Your task to perform on an android device: turn on the 24-hour format for clock Image 0: 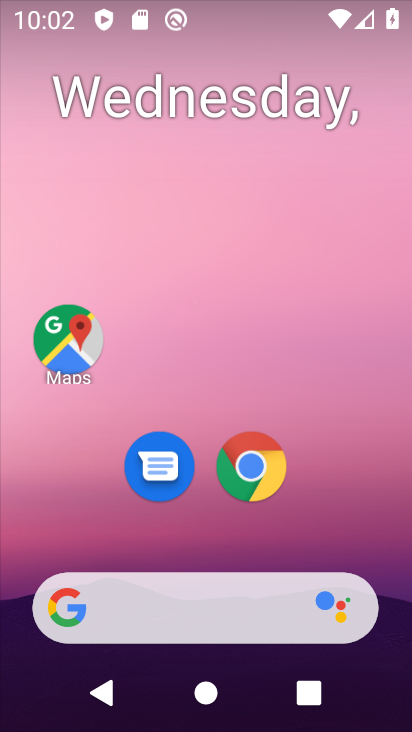
Step 0: drag from (202, 535) to (203, 53)
Your task to perform on an android device: turn on the 24-hour format for clock Image 1: 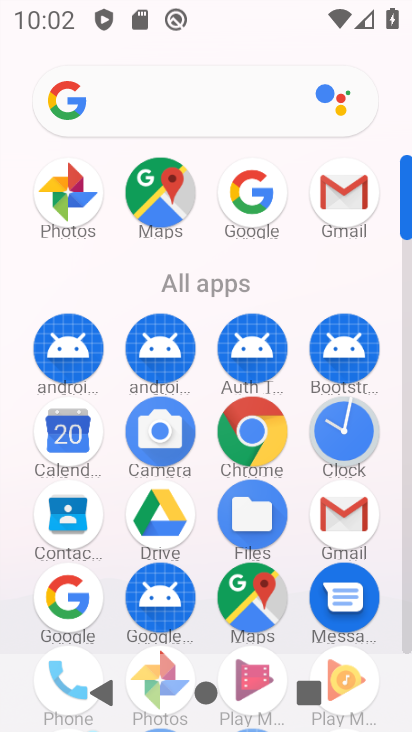
Step 1: drag from (209, 552) to (202, 152)
Your task to perform on an android device: turn on the 24-hour format for clock Image 2: 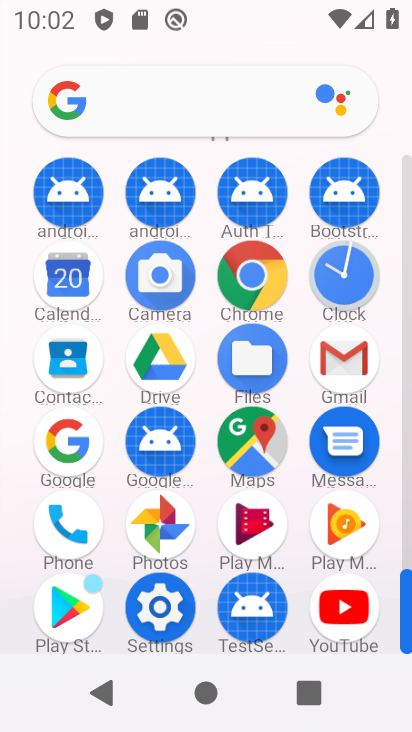
Step 2: click (339, 267)
Your task to perform on an android device: turn on the 24-hour format for clock Image 3: 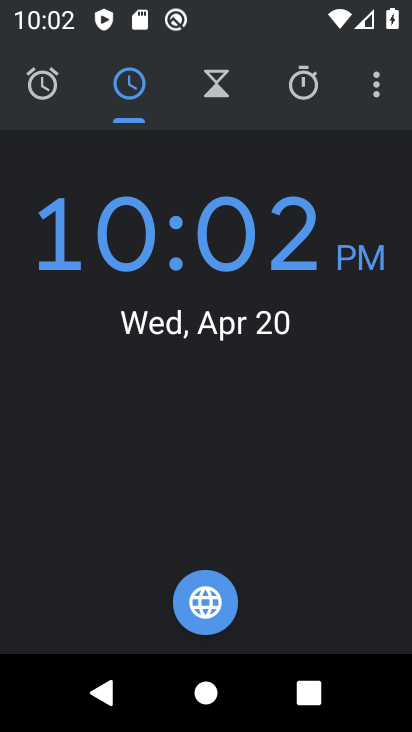
Step 3: click (376, 79)
Your task to perform on an android device: turn on the 24-hour format for clock Image 4: 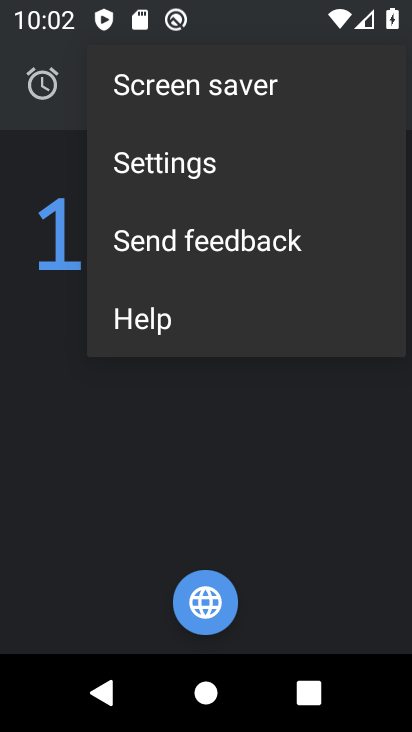
Step 4: click (220, 160)
Your task to perform on an android device: turn on the 24-hour format for clock Image 5: 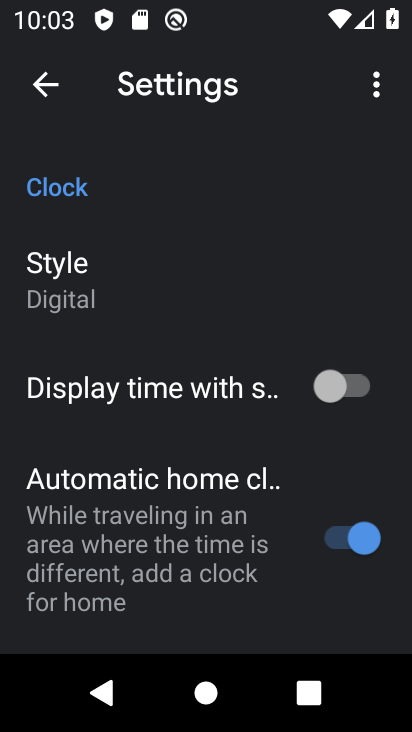
Step 5: drag from (191, 594) to (195, 133)
Your task to perform on an android device: turn on the 24-hour format for clock Image 6: 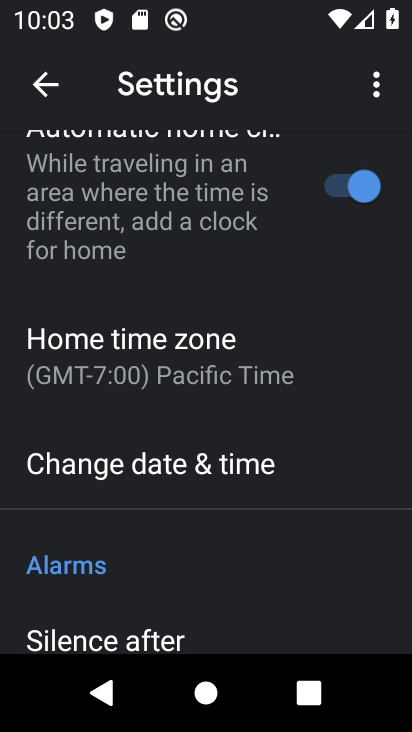
Step 6: click (186, 478)
Your task to perform on an android device: turn on the 24-hour format for clock Image 7: 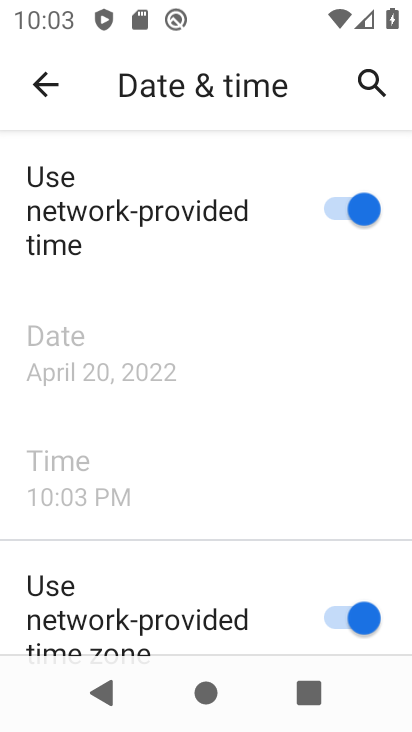
Step 7: drag from (208, 602) to (187, 168)
Your task to perform on an android device: turn on the 24-hour format for clock Image 8: 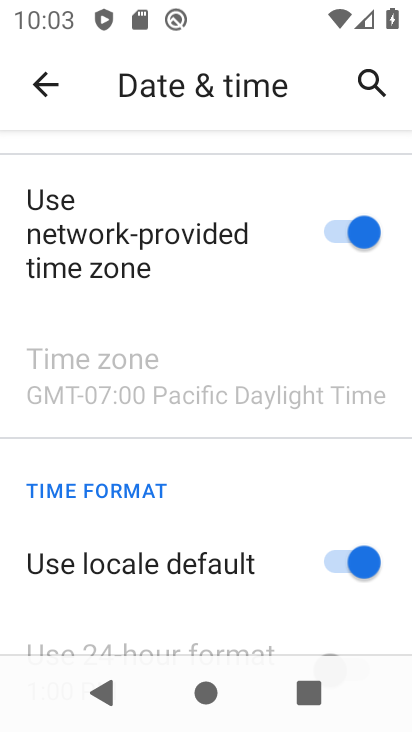
Step 8: drag from (211, 610) to (183, 205)
Your task to perform on an android device: turn on the 24-hour format for clock Image 9: 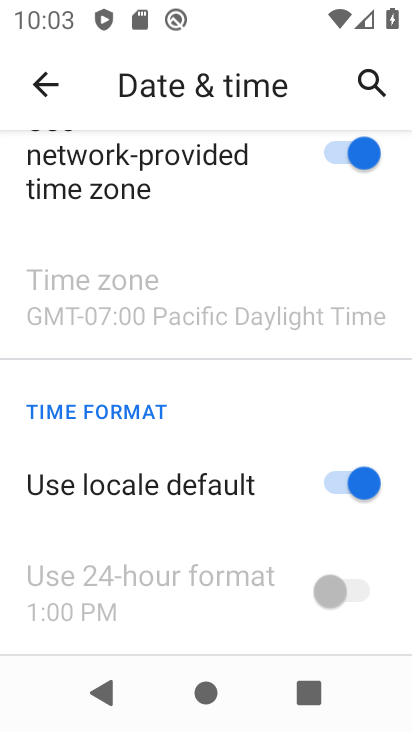
Step 9: click (340, 476)
Your task to perform on an android device: turn on the 24-hour format for clock Image 10: 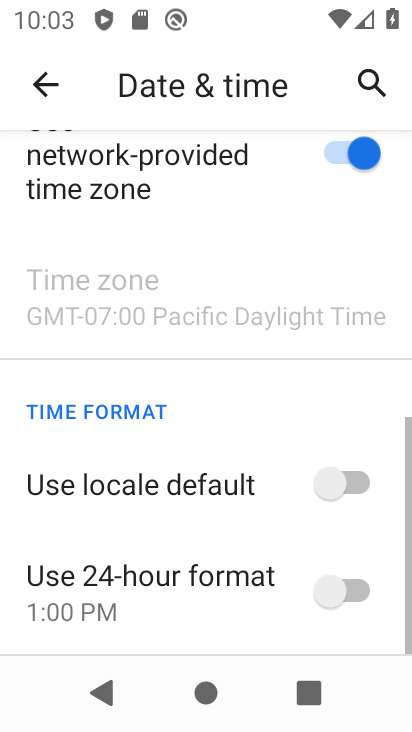
Step 10: click (349, 586)
Your task to perform on an android device: turn on the 24-hour format for clock Image 11: 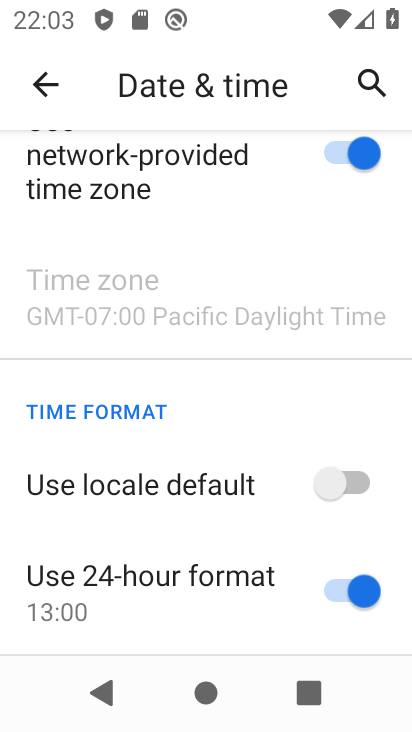
Step 11: task complete